Your task to perform on an android device: change alarm snooze length Image 0: 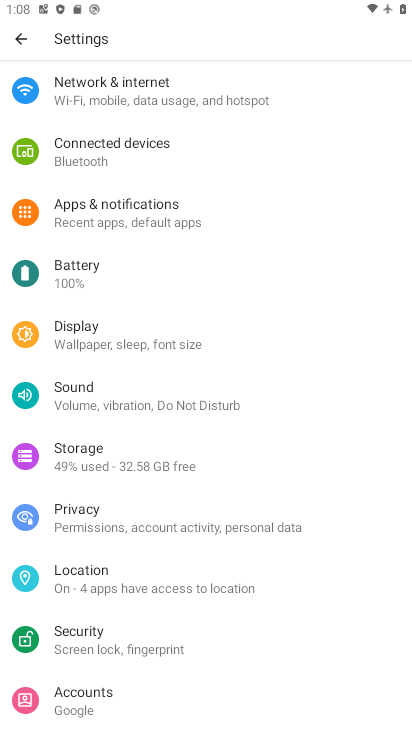
Step 0: press home button
Your task to perform on an android device: change alarm snooze length Image 1: 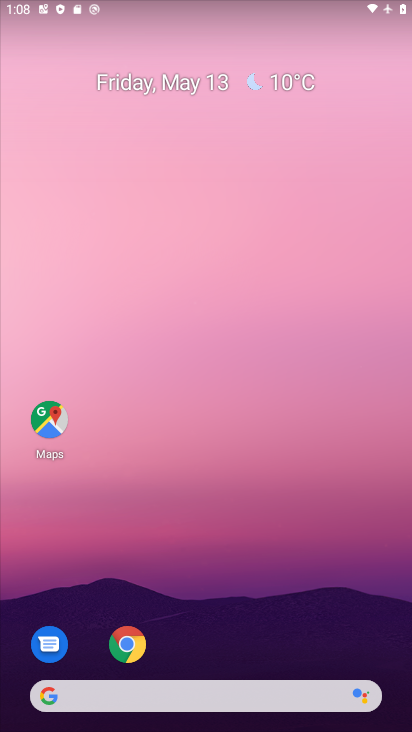
Step 1: drag from (220, 725) to (220, 187)
Your task to perform on an android device: change alarm snooze length Image 2: 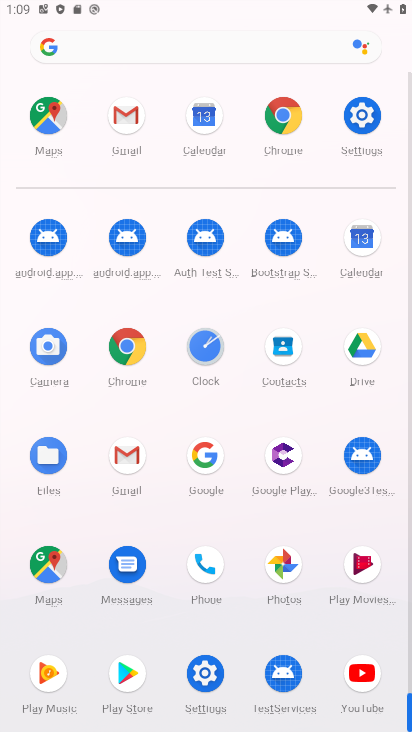
Step 2: click (201, 343)
Your task to perform on an android device: change alarm snooze length Image 3: 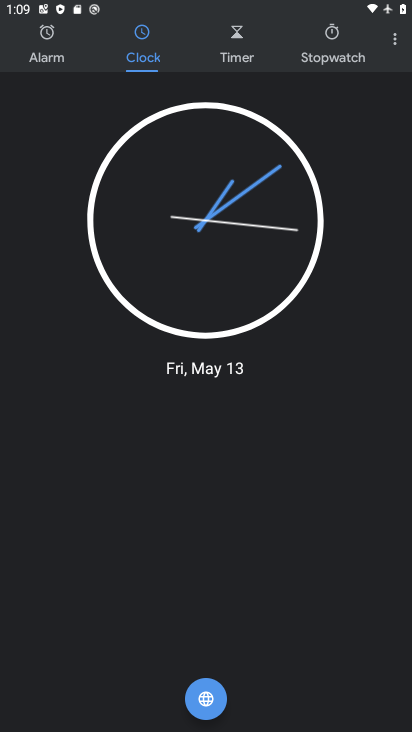
Step 3: click (397, 43)
Your task to perform on an android device: change alarm snooze length Image 4: 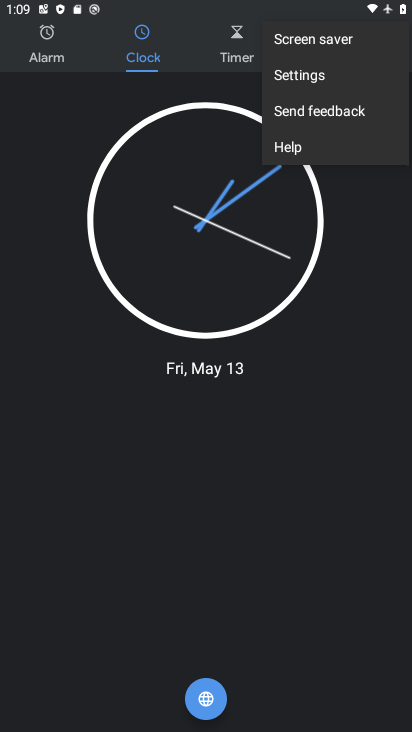
Step 4: click (319, 76)
Your task to perform on an android device: change alarm snooze length Image 5: 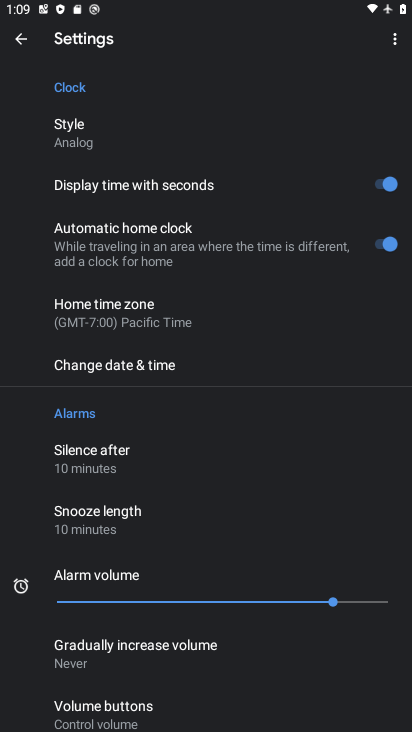
Step 5: click (100, 513)
Your task to perform on an android device: change alarm snooze length Image 6: 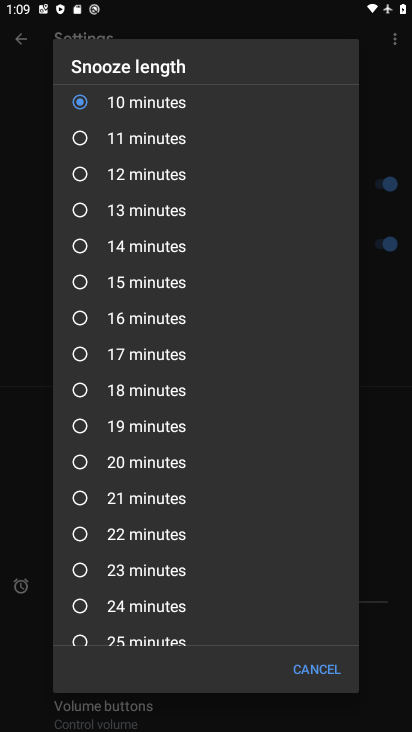
Step 6: click (82, 501)
Your task to perform on an android device: change alarm snooze length Image 7: 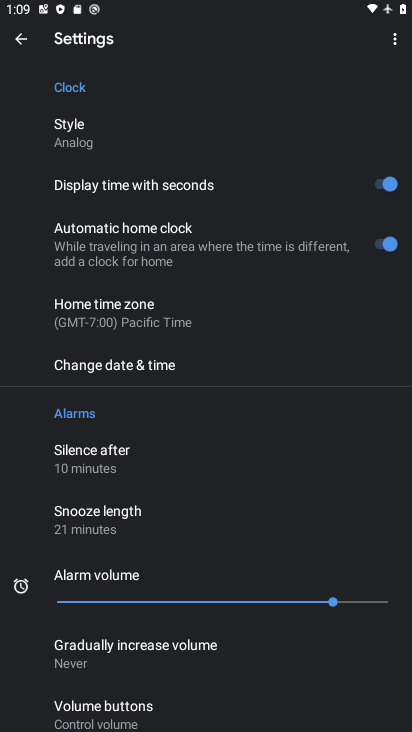
Step 7: task complete